Your task to perform on an android device: Open Chrome and go to the settings page Image 0: 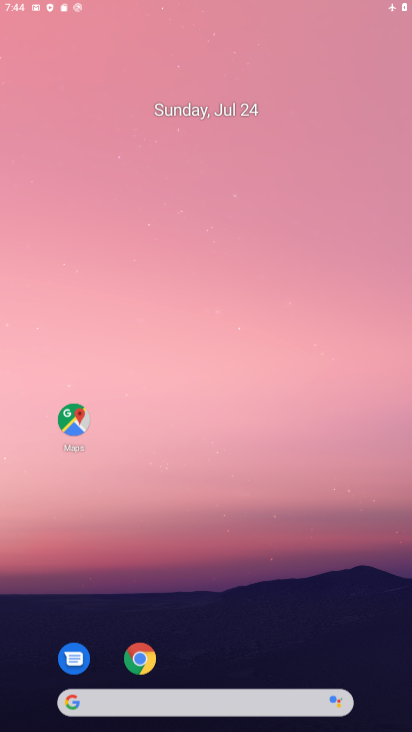
Step 0: drag from (250, 675) to (199, 223)
Your task to perform on an android device: Open Chrome and go to the settings page Image 1: 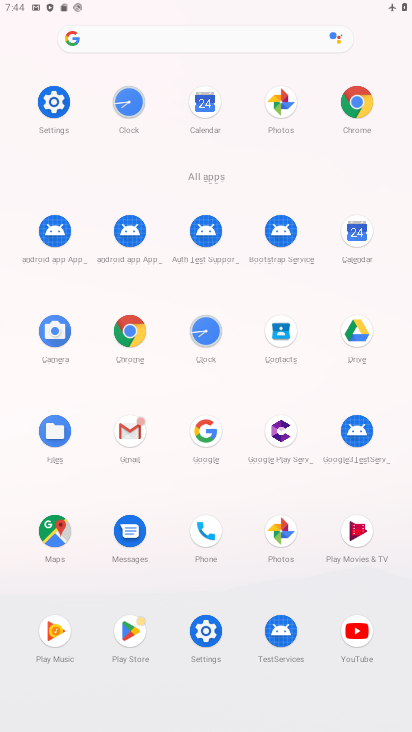
Step 1: click (47, 107)
Your task to perform on an android device: Open Chrome and go to the settings page Image 2: 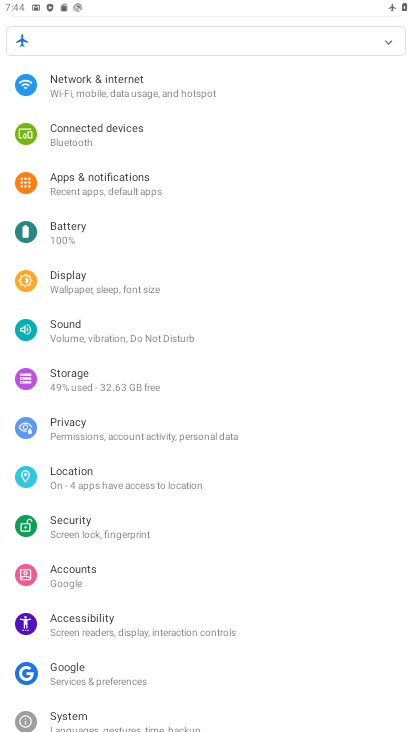
Step 2: press back button
Your task to perform on an android device: Open Chrome and go to the settings page Image 3: 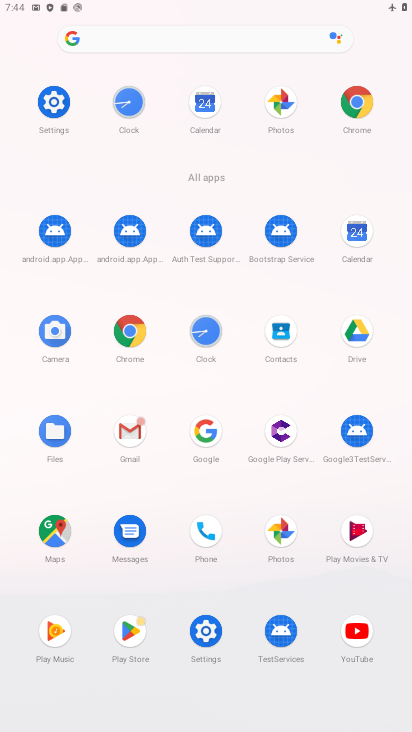
Step 3: click (132, 333)
Your task to perform on an android device: Open Chrome and go to the settings page Image 4: 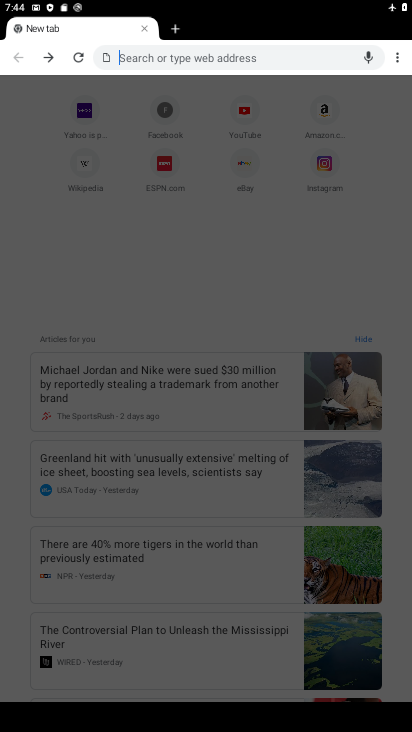
Step 4: click (399, 61)
Your task to perform on an android device: Open Chrome and go to the settings page Image 5: 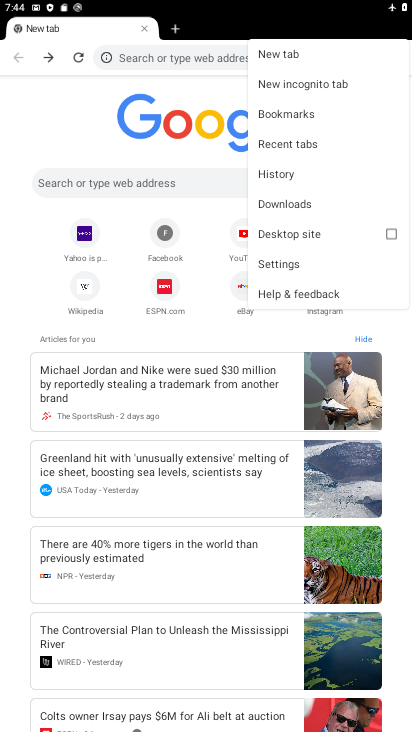
Step 5: click (270, 253)
Your task to perform on an android device: Open Chrome and go to the settings page Image 6: 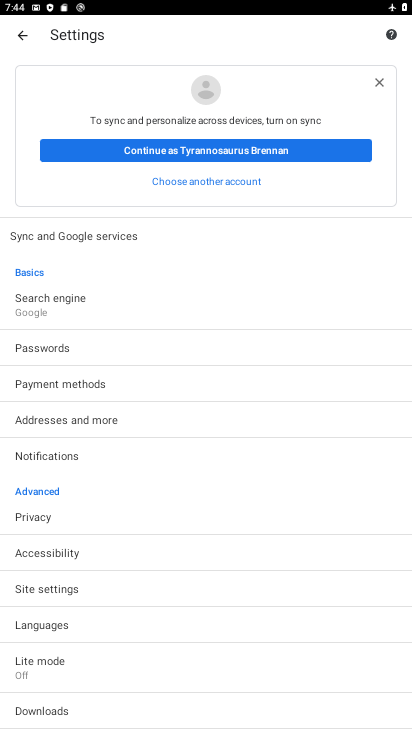
Step 6: task complete